Your task to perform on an android device: create a new album in the google photos Image 0: 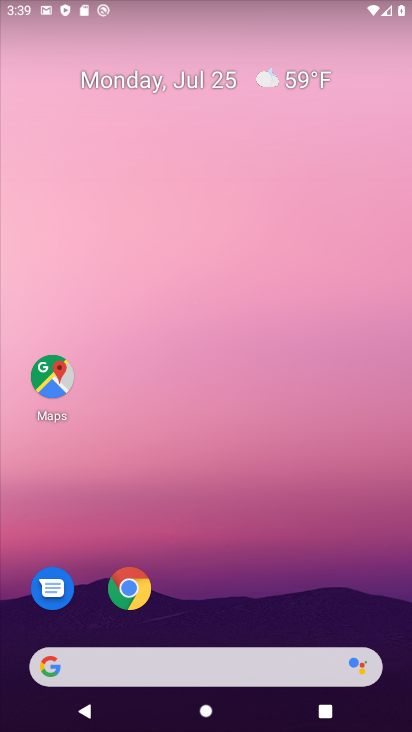
Step 0: drag from (390, 567) to (310, 96)
Your task to perform on an android device: create a new album in the google photos Image 1: 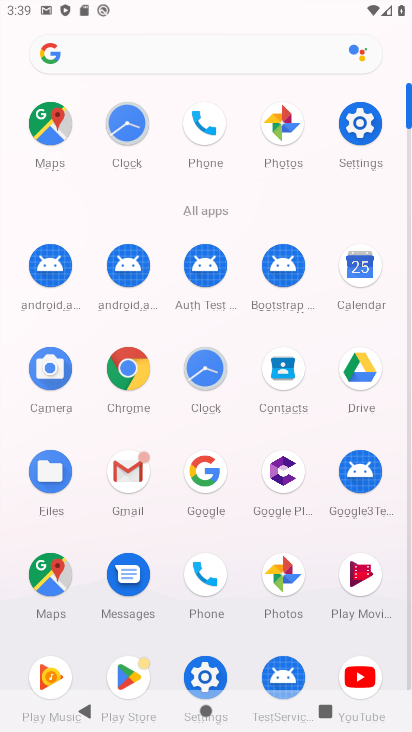
Step 1: click (278, 569)
Your task to perform on an android device: create a new album in the google photos Image 2: 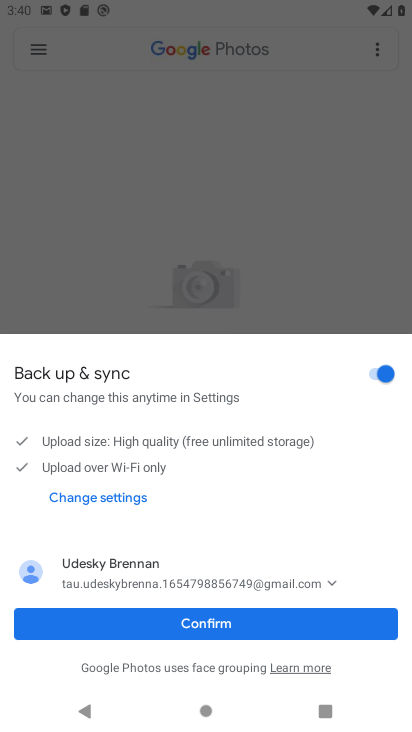
Step 2: click (187, 616)
Your task to perform on an android device: create a new album in the google photos Image 3: 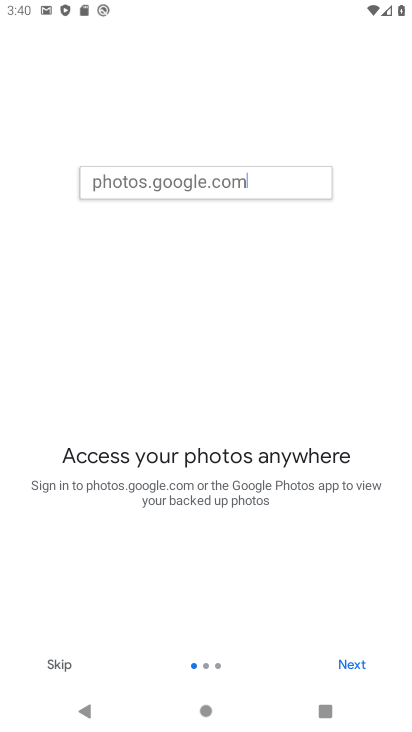
Step 3: click (356, 661)
Your task to perform on an android device: create a new album in the google photos Image 4: 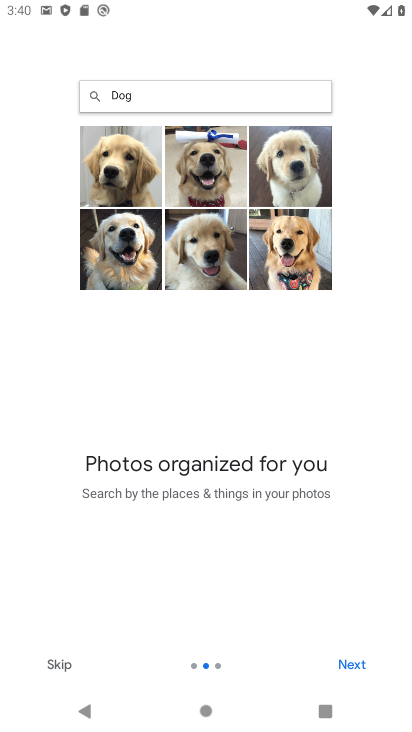
Step 4: click (342, 672)
Your task to perform on an android device: create a new album in the google photos Image 5: 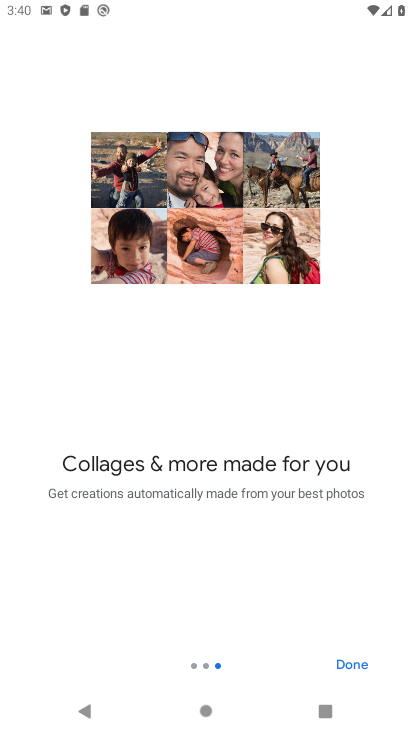
Step 5: click (342, 672)
Your task to perform on an android device: create a new album in the google photos Image 6: 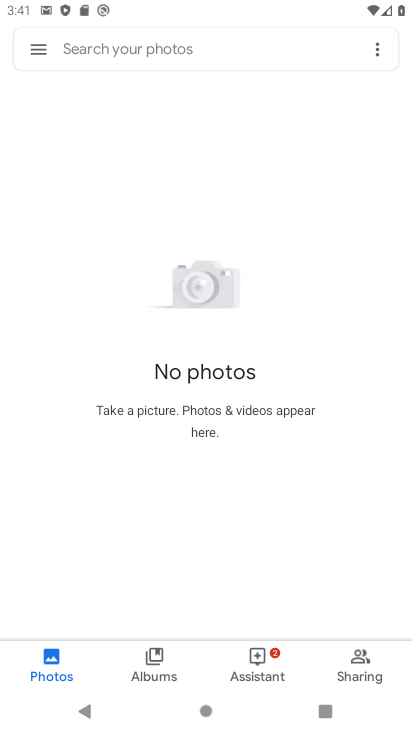
Step 6: task complete